Your task to perform on an android device: Go to CNN.com Image 0: 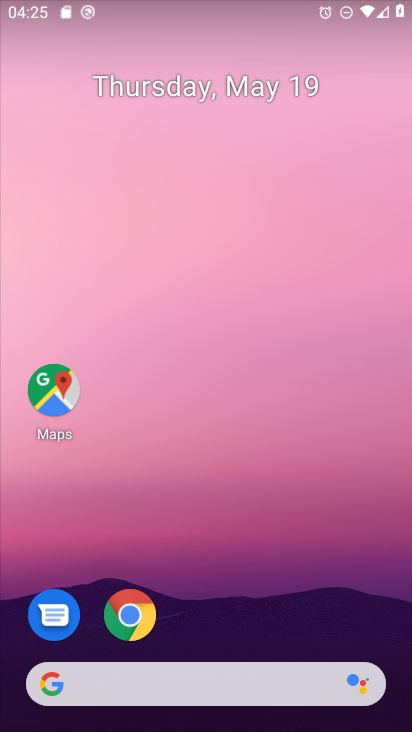
Step 0: drag from (207, 621) to (196, 114)
Your task to perform on an android device: Go to CNN.com Image 1: 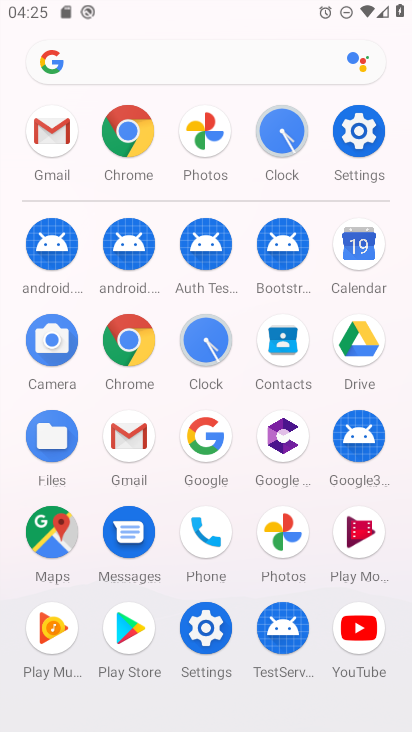
Step 1: click (145, 153)
Your task to perform on an android device: Go to CNN.com Image 2: 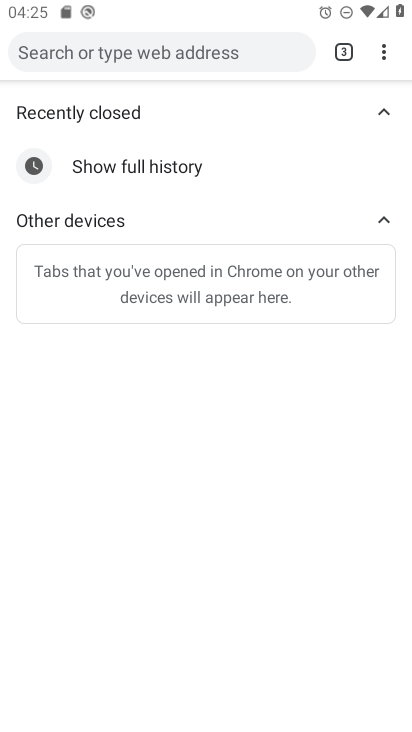
Step 2: click (220, 52)
Your task to perform on an android device: Go to CNN.com Image 3: 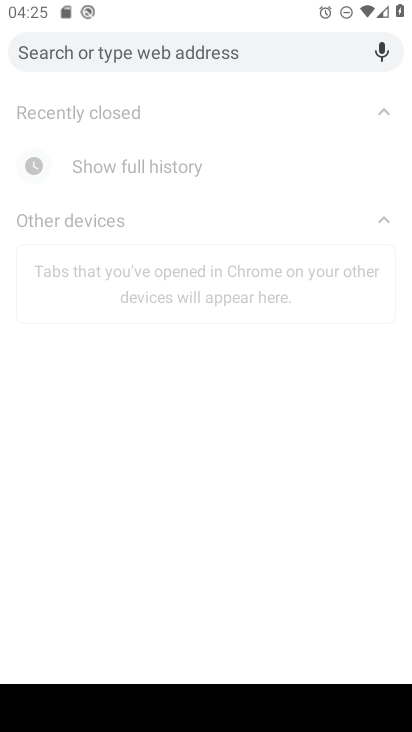
Step 3: type "cnn.com"
Your task to perform on an android device: Go to CNN.com Image 4: 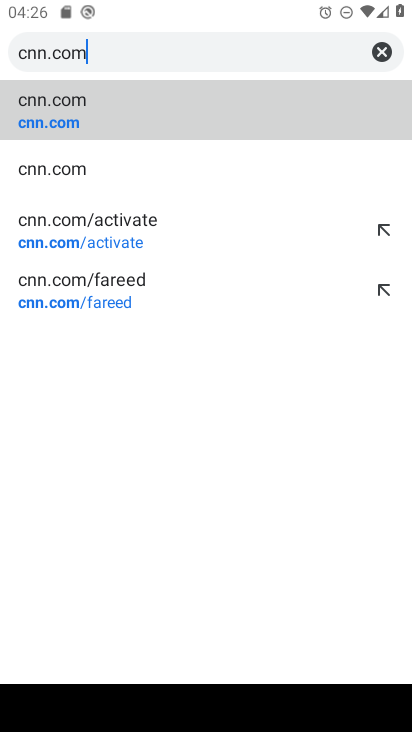
Step 4: click (40, 125)
Your task to perform on an android device: Go to CNN.com Image 5: 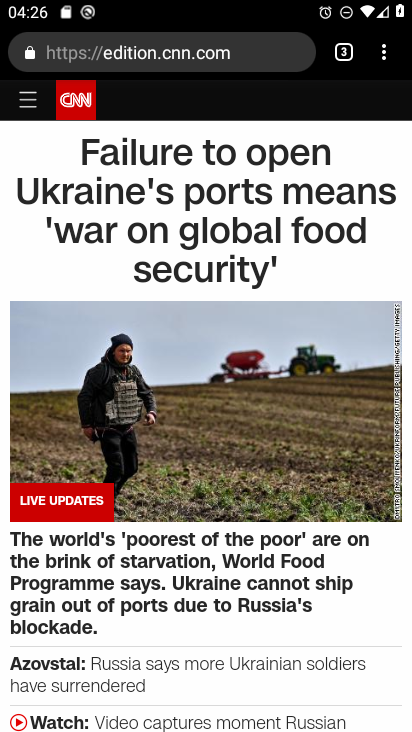
Step 5: task complete